Your task to perform on an android device: Open Google Chrome and open the bookmarks view Image 0: 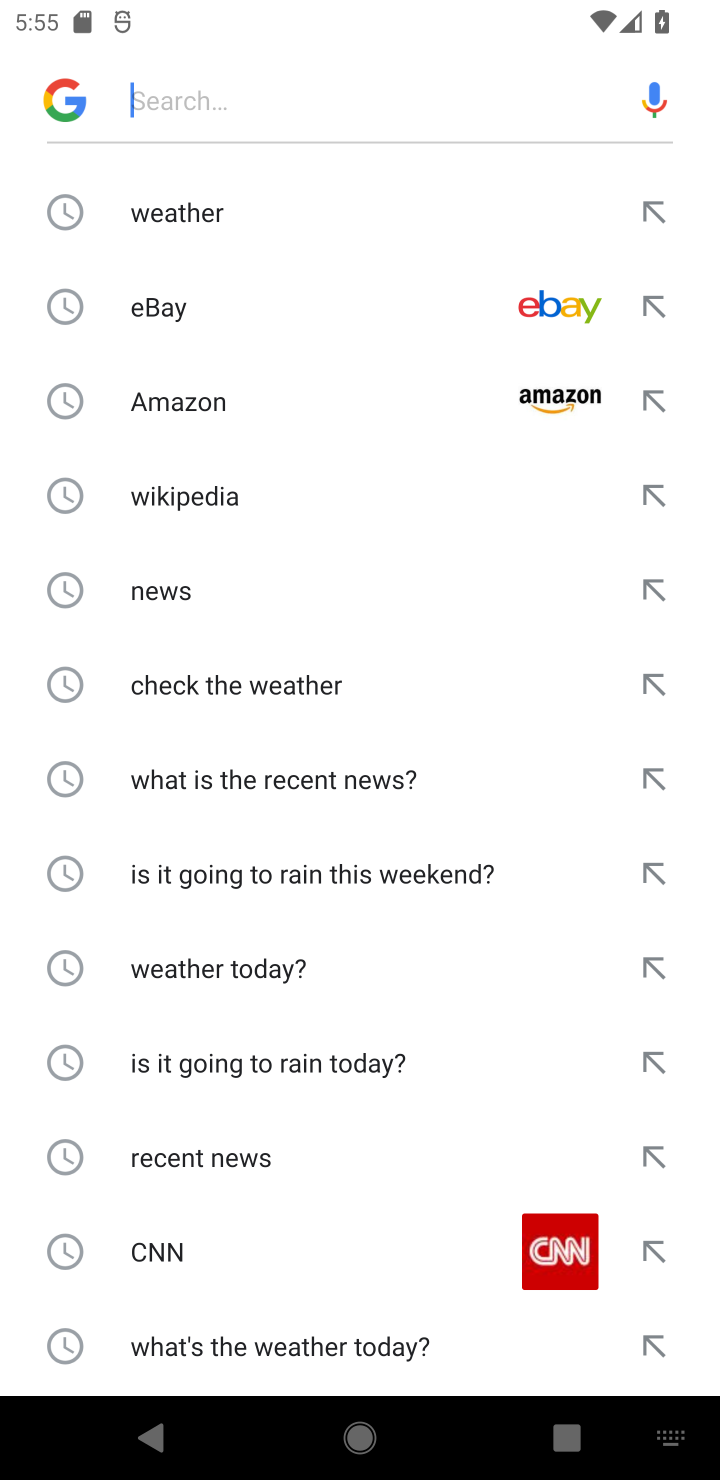
Step 0: press home button
Your task to perform on an android device: Open Google Chrome and open the bookmarks view Image 1: 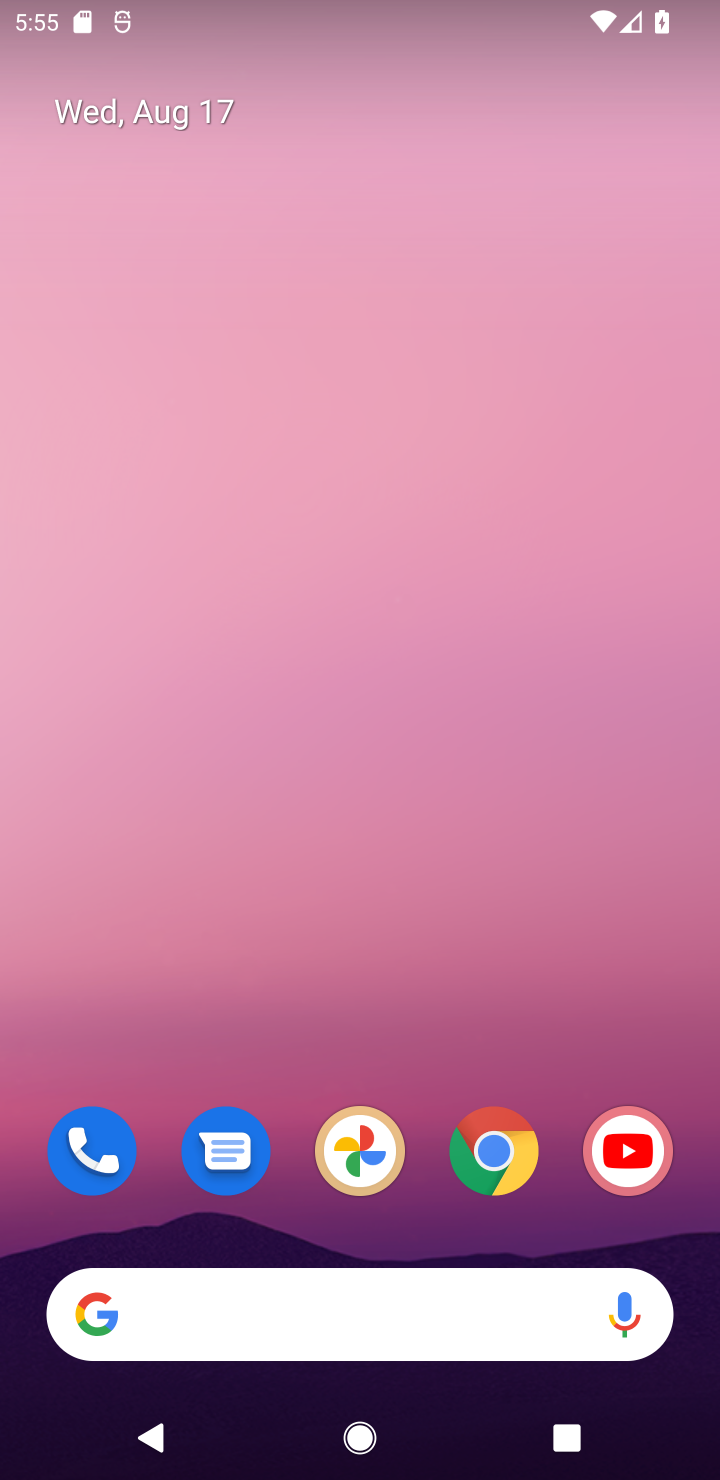
Step 1: click (523, 1146)
Your task to perform on an android device: Open Google Chrome and open the bookmarks view Image 2: 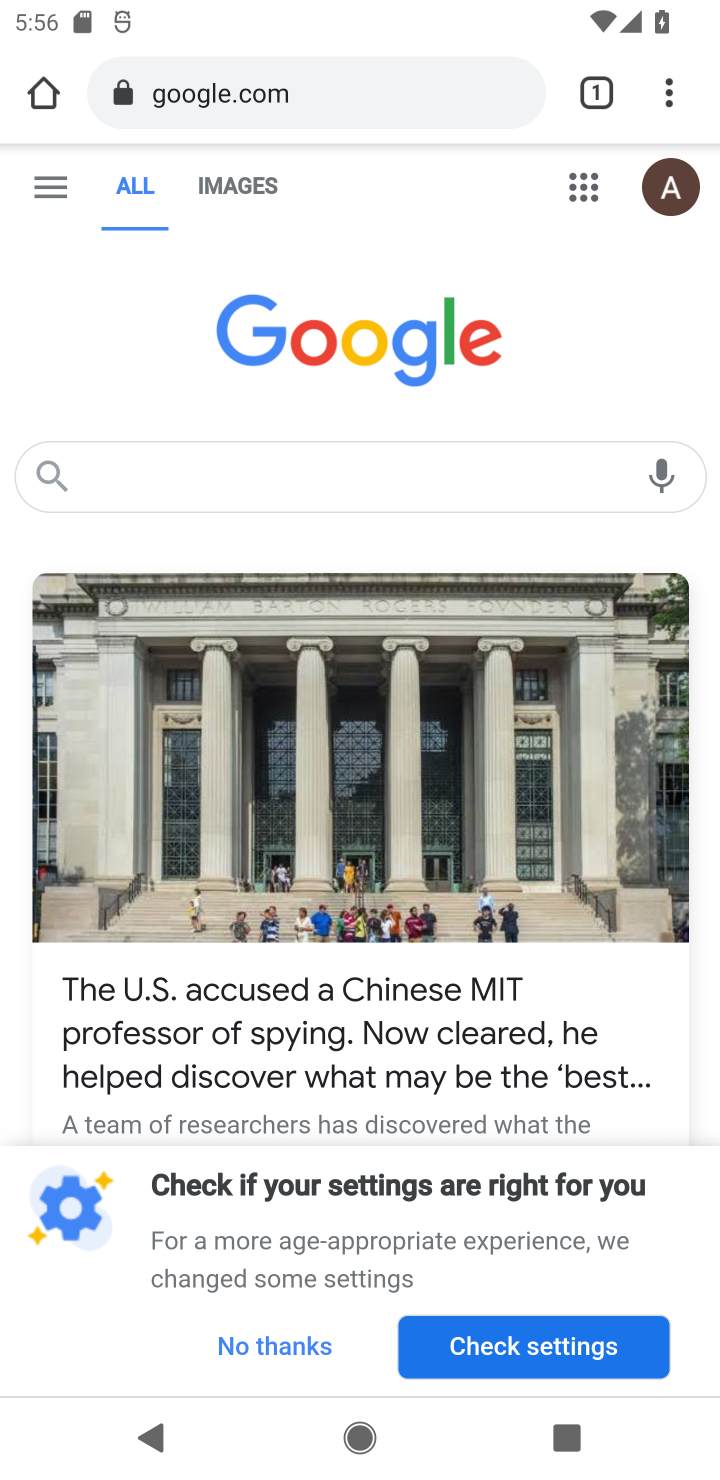
Step 2: click (667, 94)
Your task to perform on an android device: Open Google Chrome and open the bookmarks view Image 3: 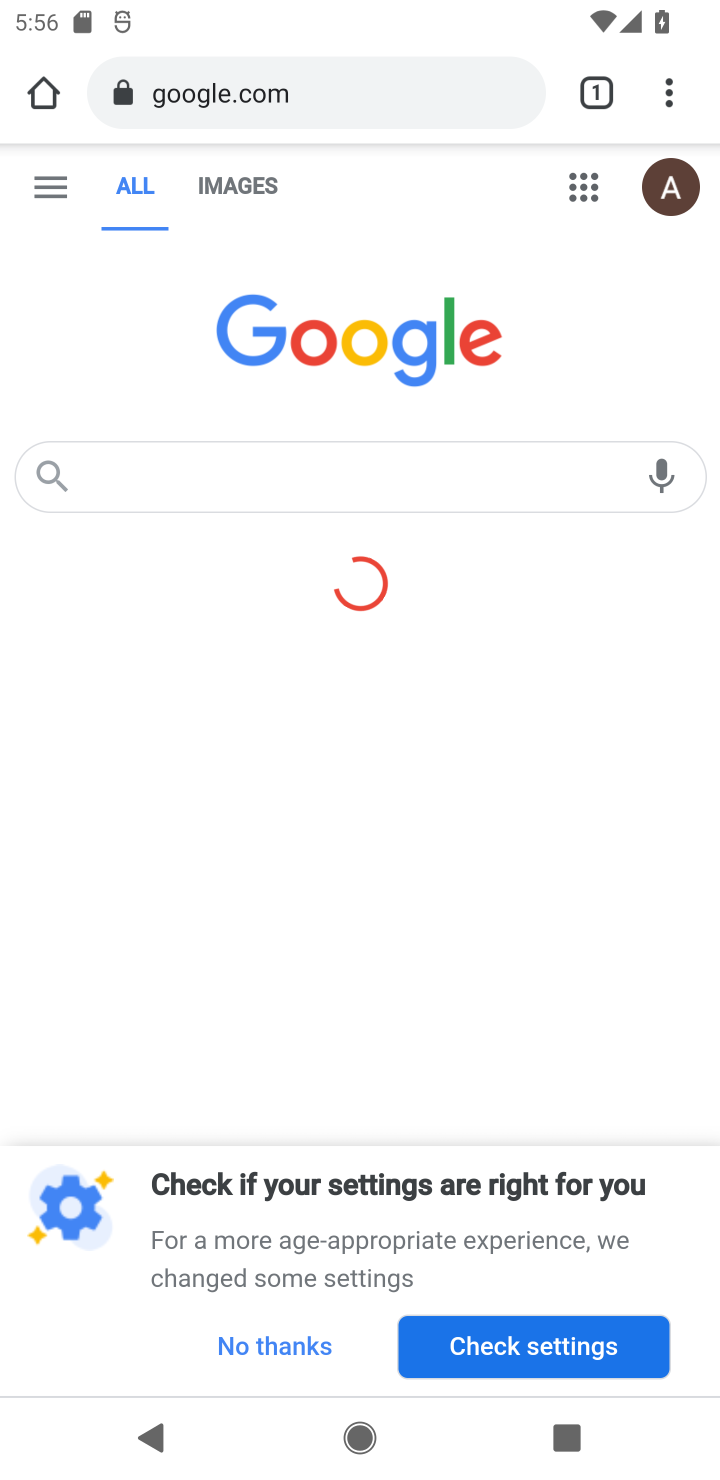
Step 3: task complete